Your task to perform on an android device: turn on bluetooth scan Image 0: 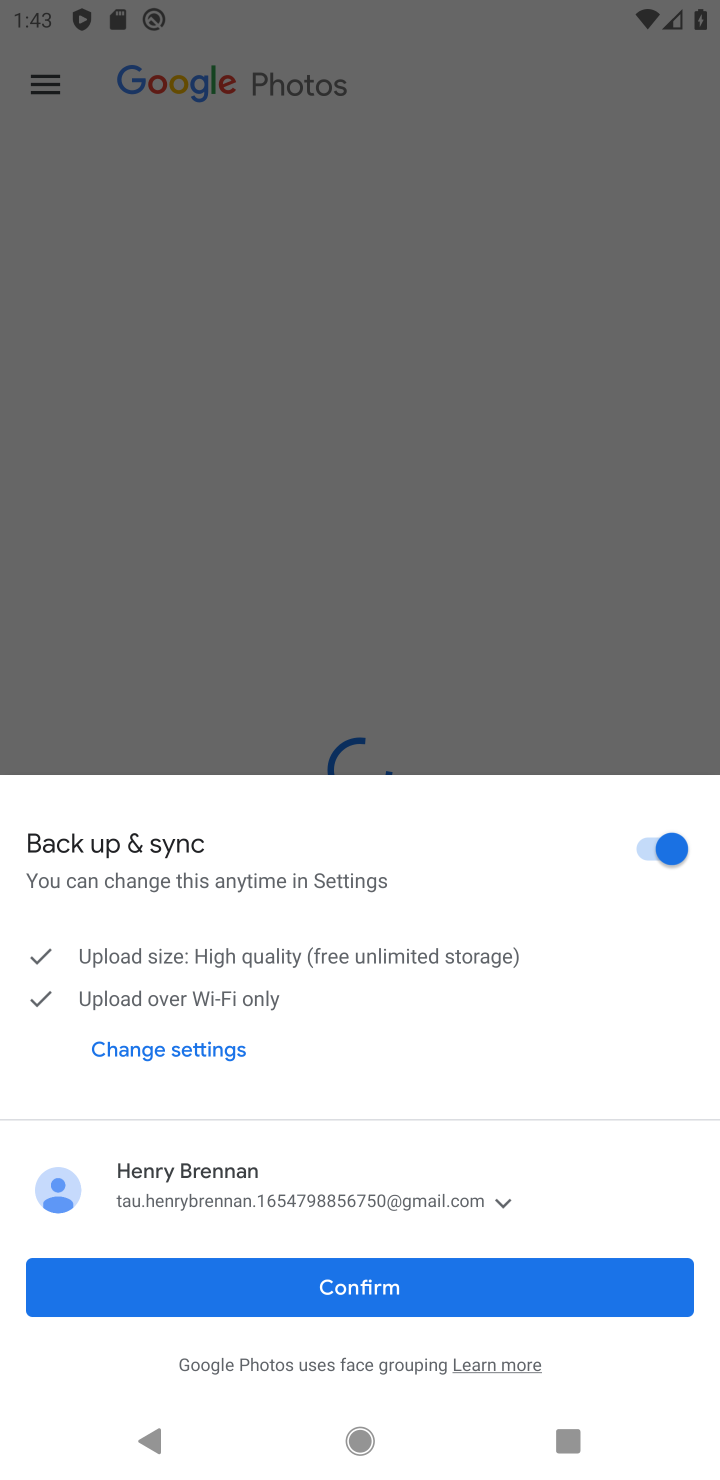
Step 0: press home button
Your task to perform on an android device: turn on bluetooth scan Image 1: 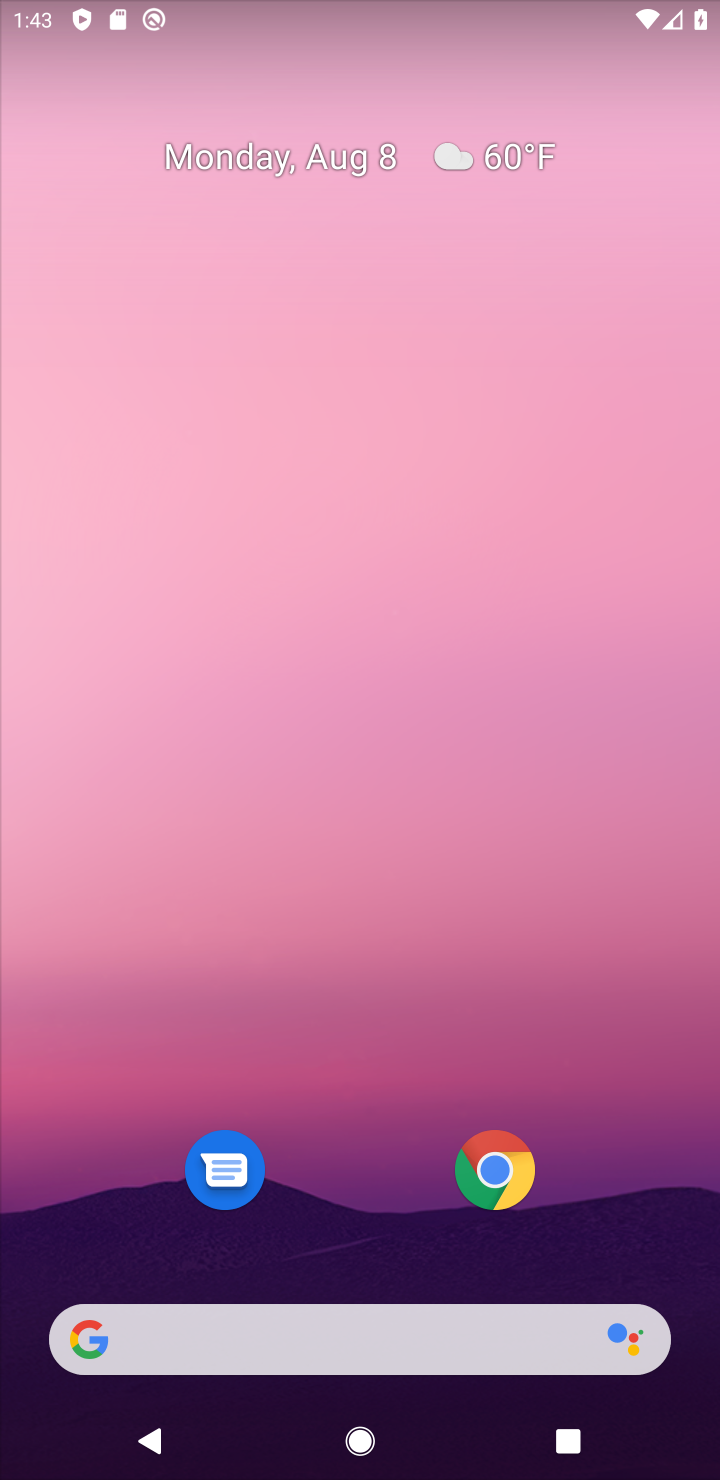
Step 1: drag from (101, 1423) to (477, 378)
Your task to perform on an android device: turn on bluetooth scan Image 2: 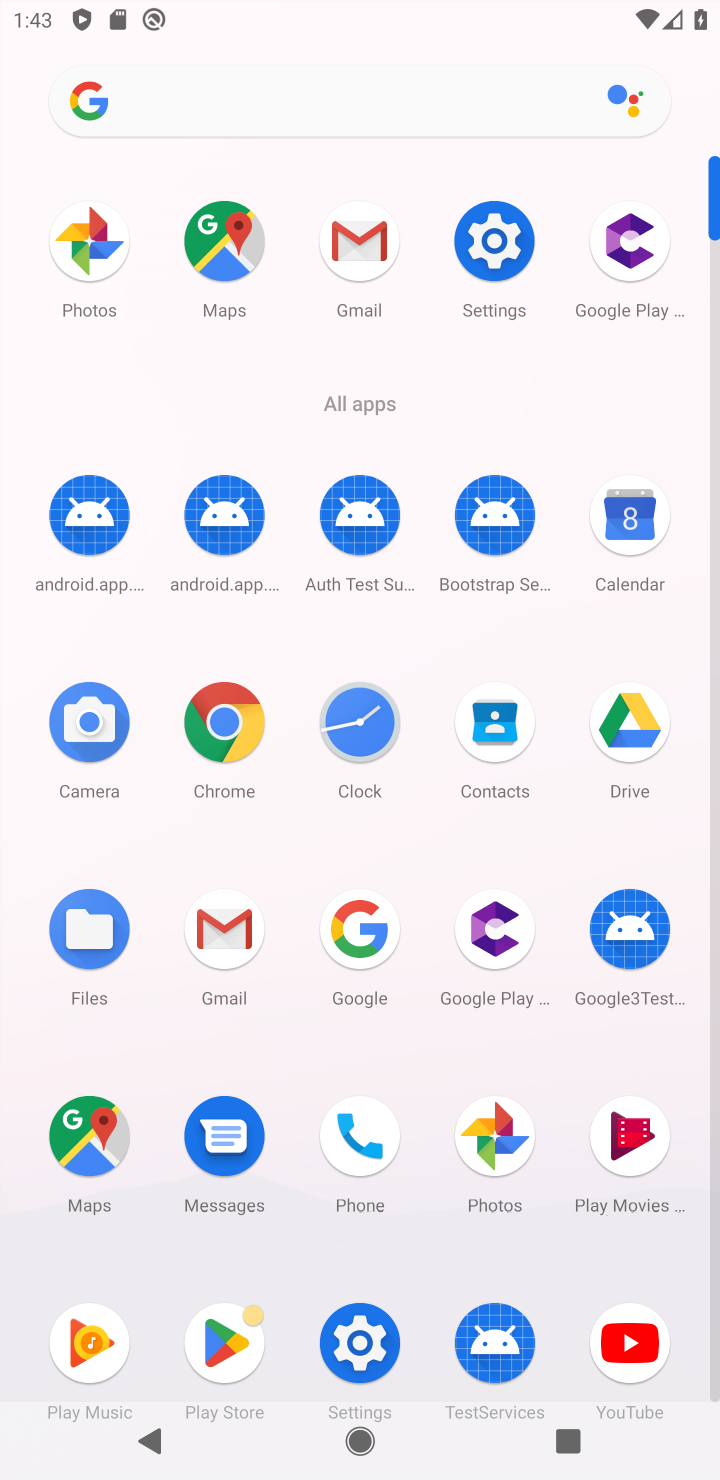
Step 2: click (517, 254)
Your task to perform on an android device: turn on bluetooth scan Image 3: 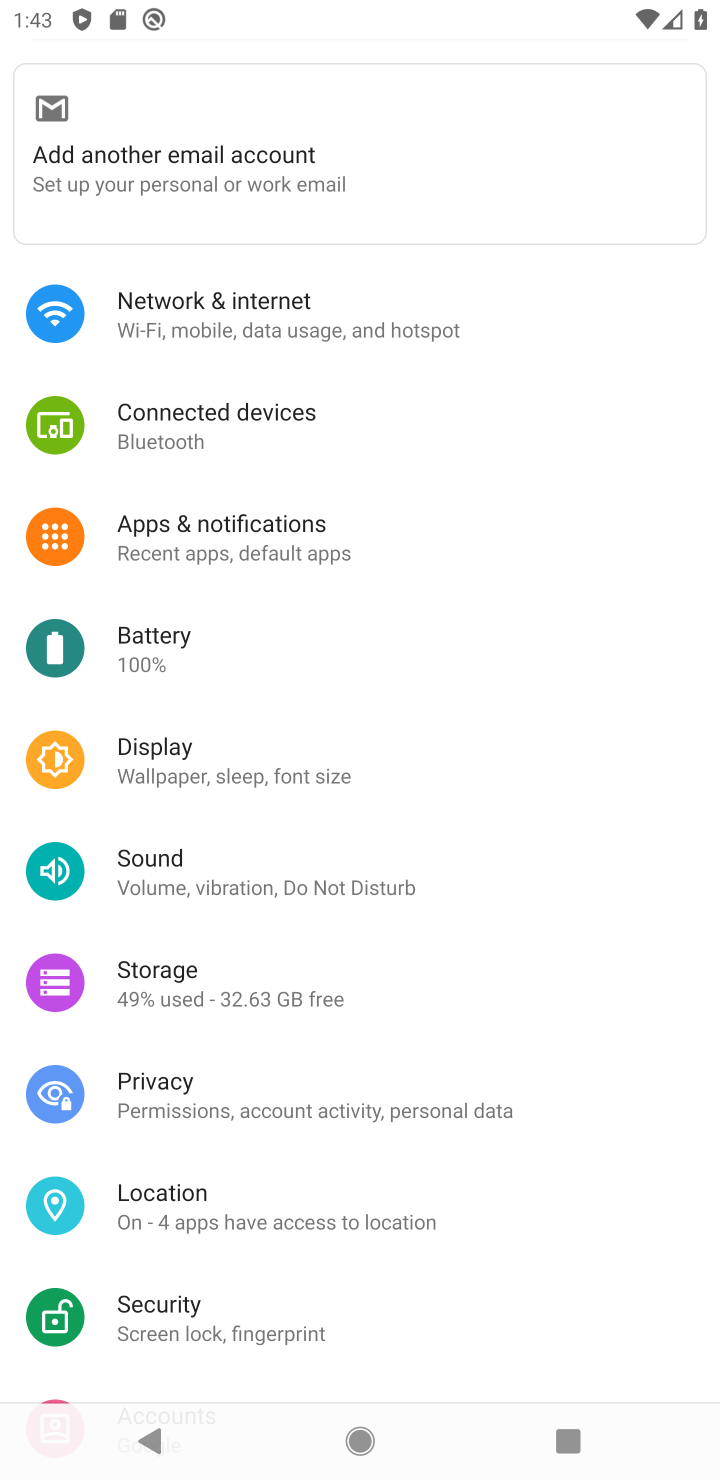
Step 3: click (186, 427)
Your task to perform on an android device: turn on bluetooth scan Image 4: 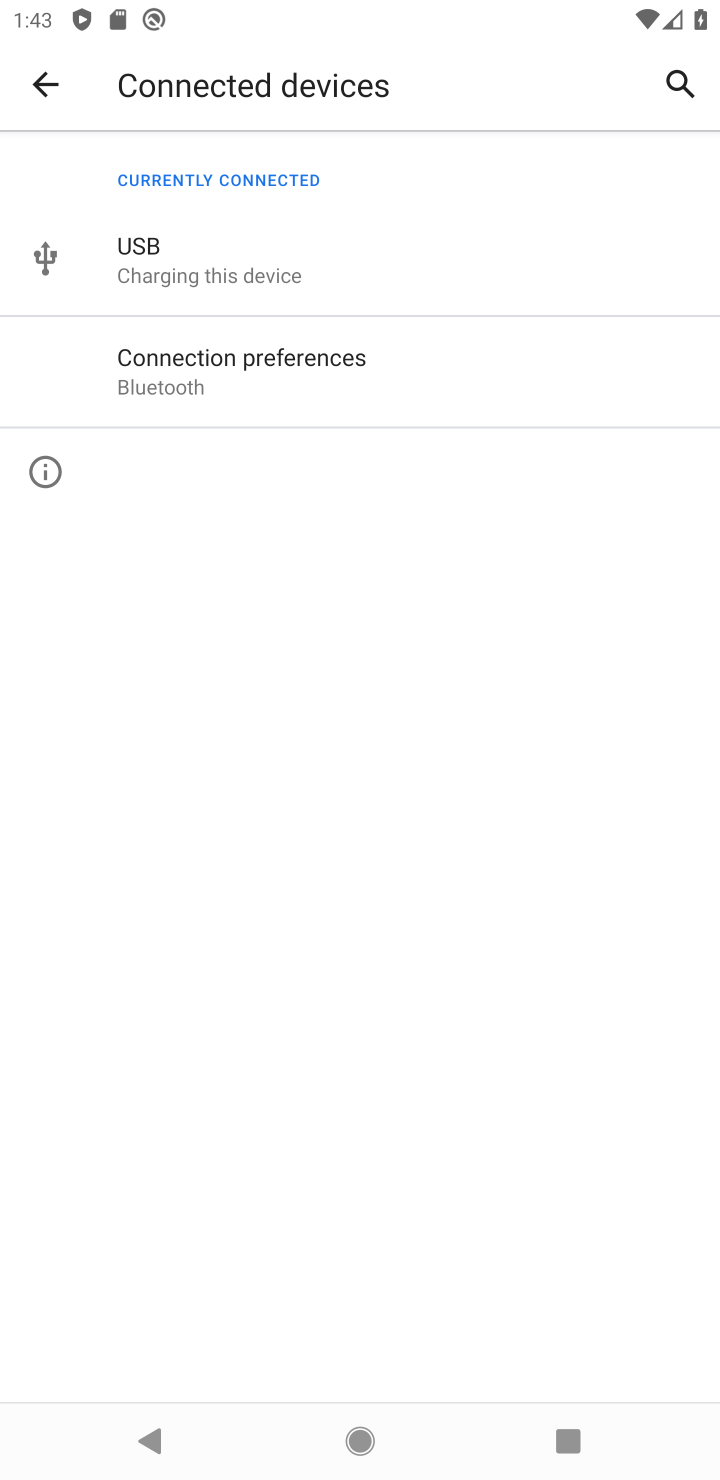
Step 4: click (154, 385)
Your task to perform on an android device: turn on bluetooth scan Image 5: 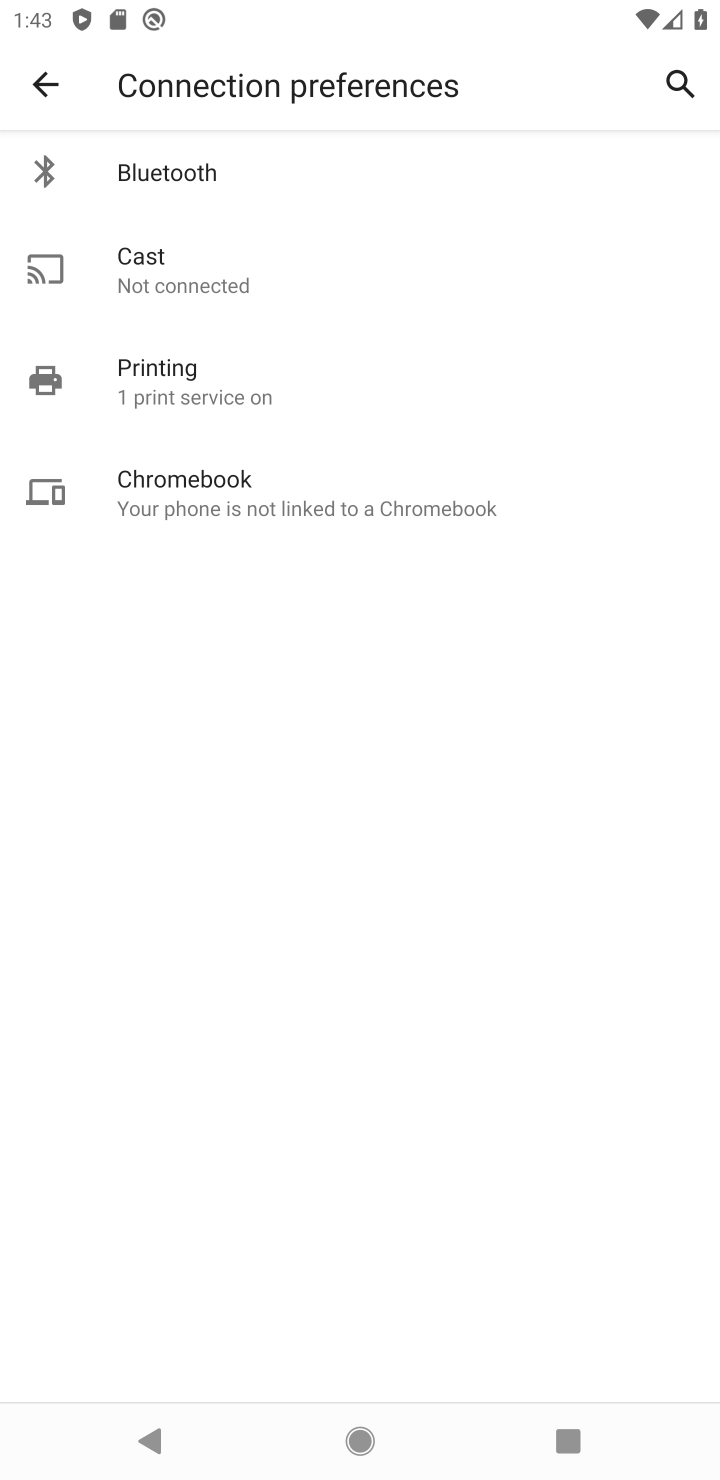
Step 5: click (210, 178)
Your task to perform on an android device: turn on bluetooth scan Image 6: 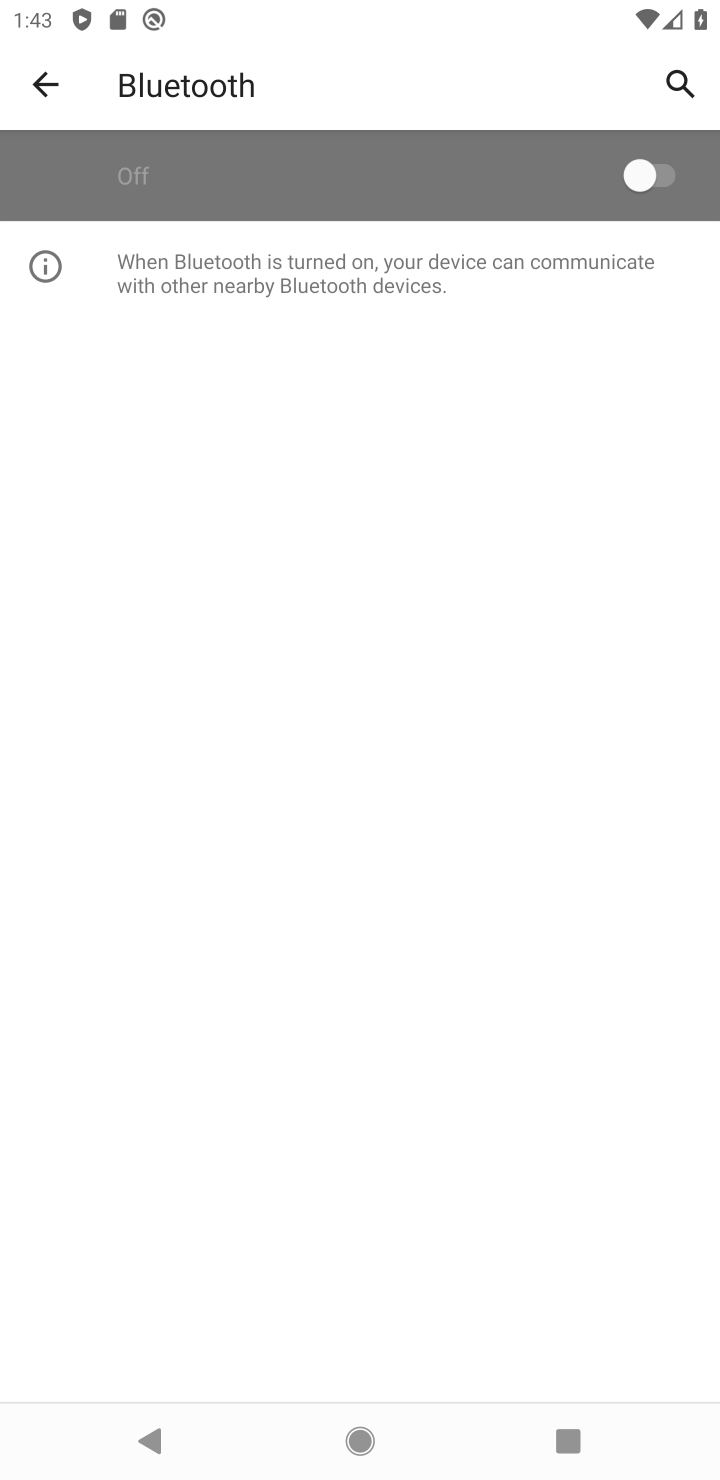
Step 6: click (653, 182)
Your task to perform on an android device: turn on bluetooth scan Image 7: 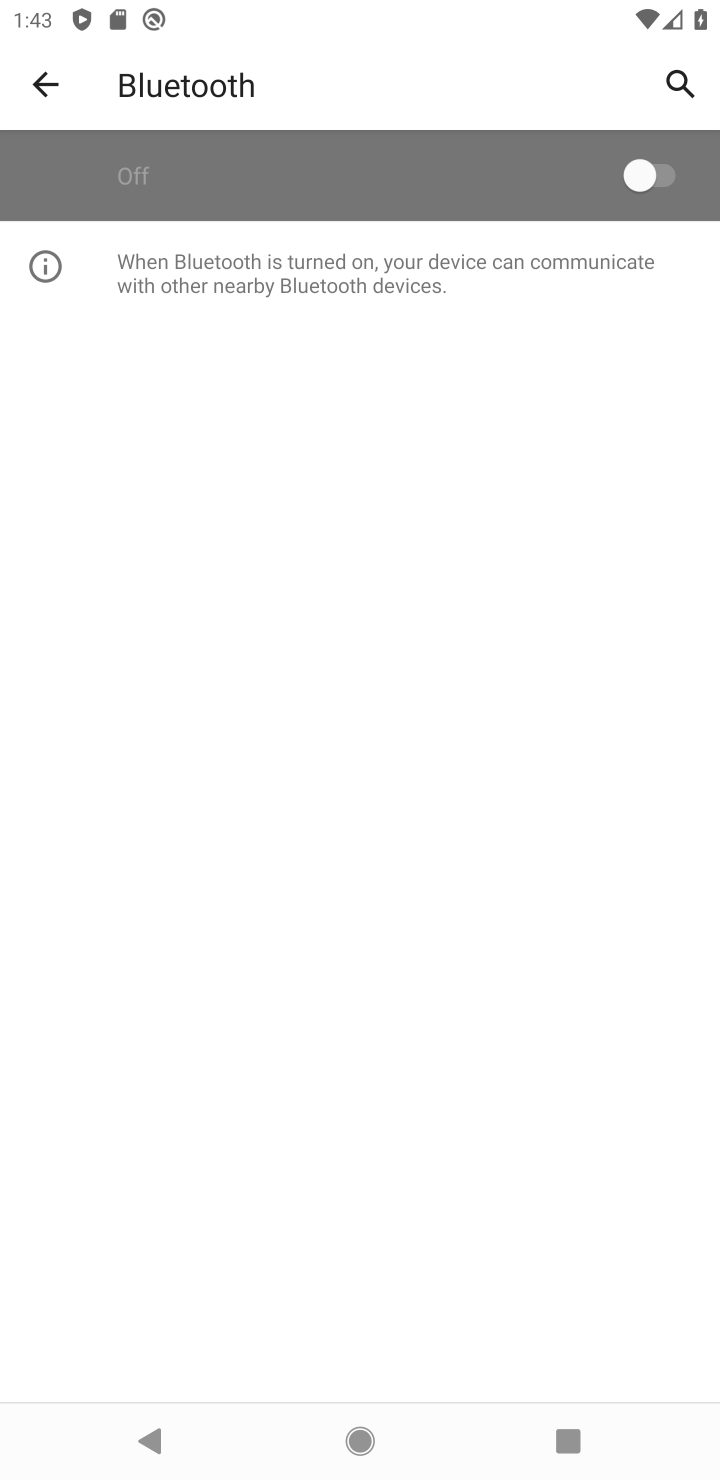
Step 7: task complete